Your task to perform on an android device: uninstall "Spotify: Music and Podcasts" Image 0: 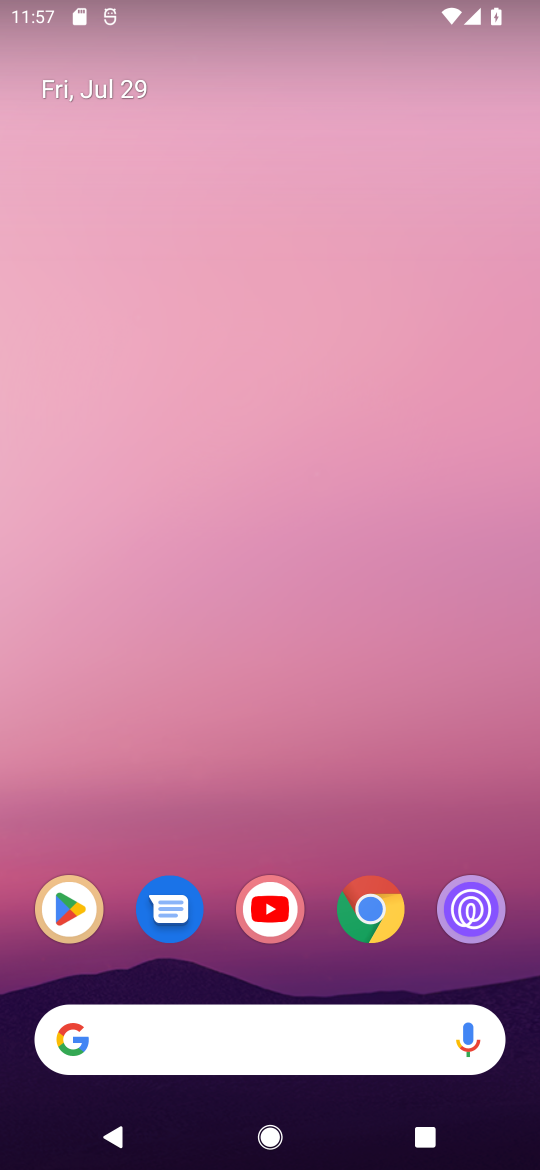
Step 0: press home button
Your task to perform on an android device: uninstall "Spotify: Music and Podcasts" Image 1: 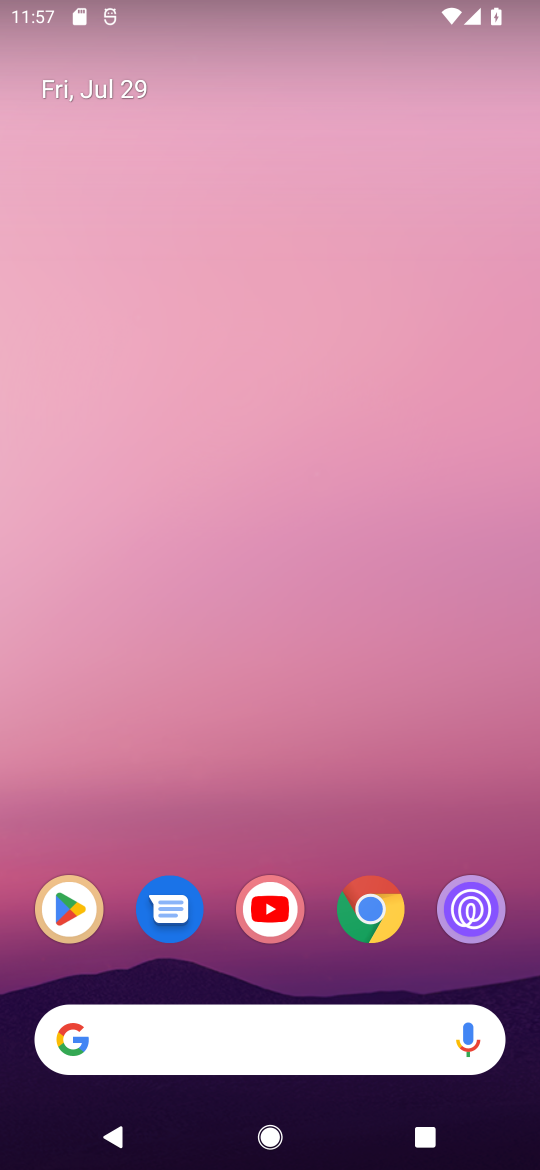
Step 1: press home button
Your task to perform on an android device: uninstall "Spotify: Music and Podcasts" Image 2: 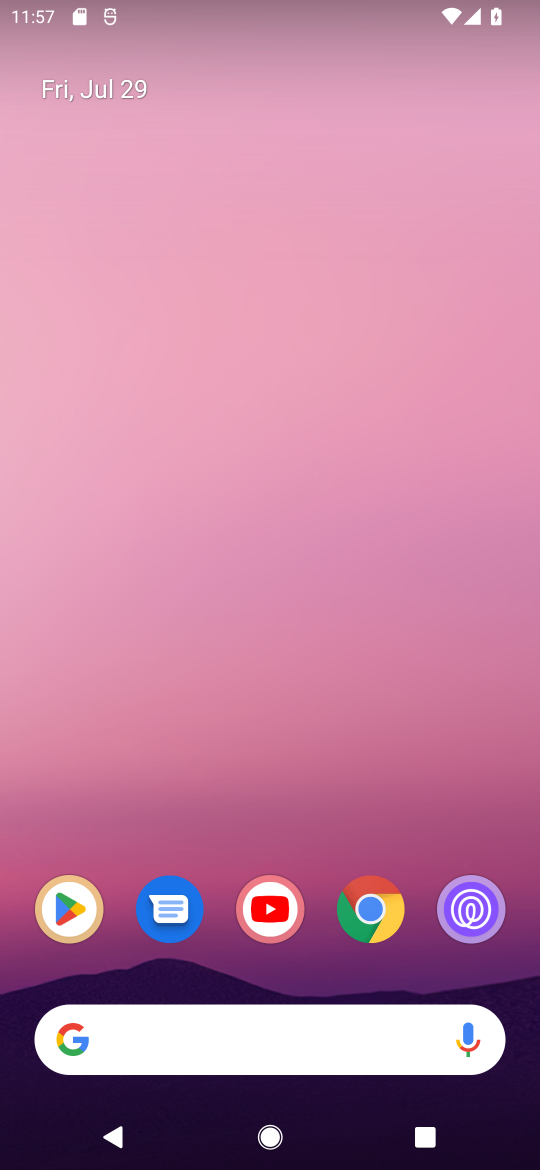
Step 2: drag from (399, 697) to (389, 99)
Your task to perform on an android device: uninstall "Spotify: Music and Podcasts" Image 3: 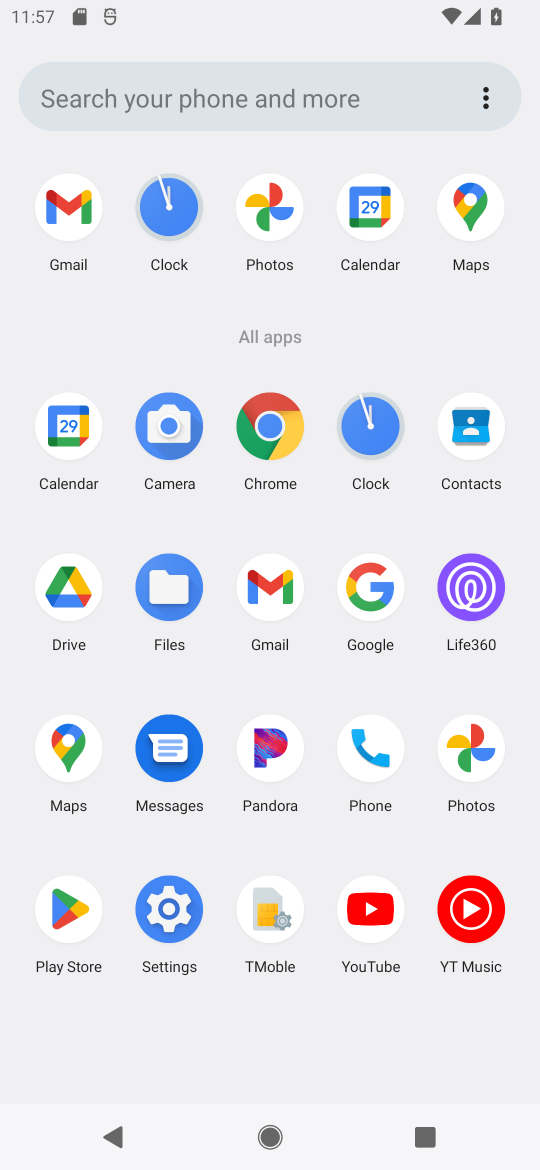
Step 3: click (63, 909)
Your task to perform on an android device: uninstall "Spotify: Music and Podcasts" Image 4: 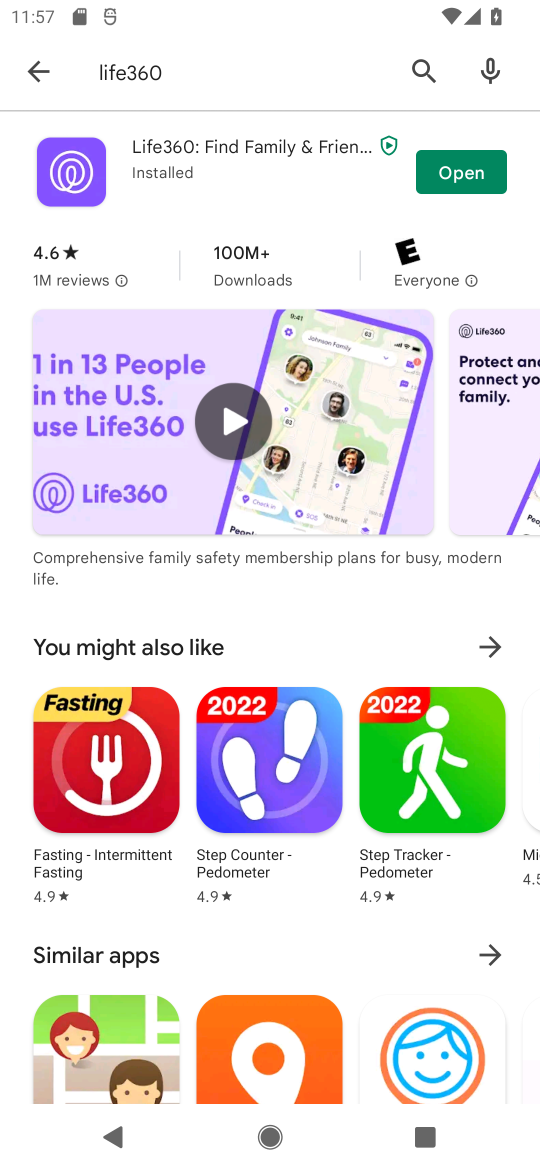
Step 4: click (423, 58)
Your task to perform on an android device: uninstall "Spotify: Music and Podcasts" Image 5: 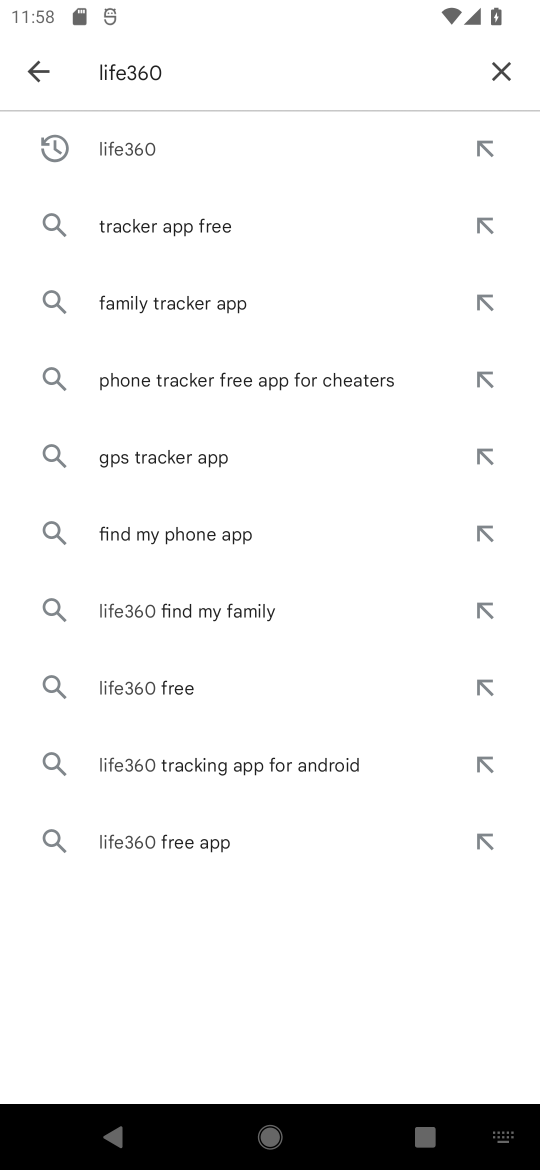
Step 5: type "Spotify: Music and Podcasts""
Your task to perform on an android device: uninstall "Spotify: Music and Podcasts" Image 6: 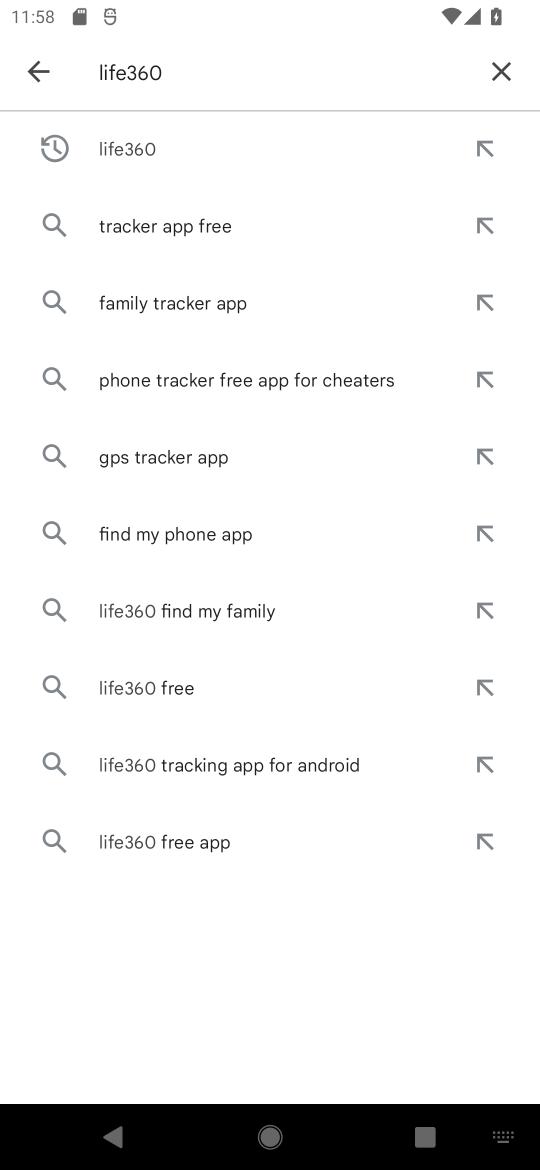
Step 6: click (490, 54)
Your task to perform on an android device: uninstall "Spotify: Music and Podcasts" Image 7: 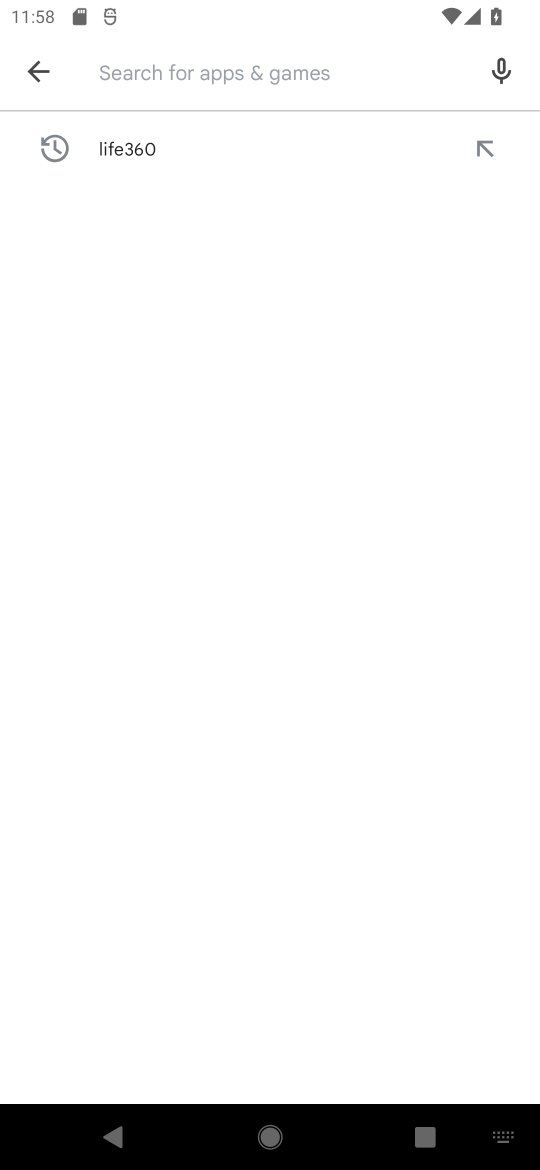
Step 7: type "Spotify"
Your task to perform on an android device: uninstall "Spotify: Music and Podcasts" Image 8: 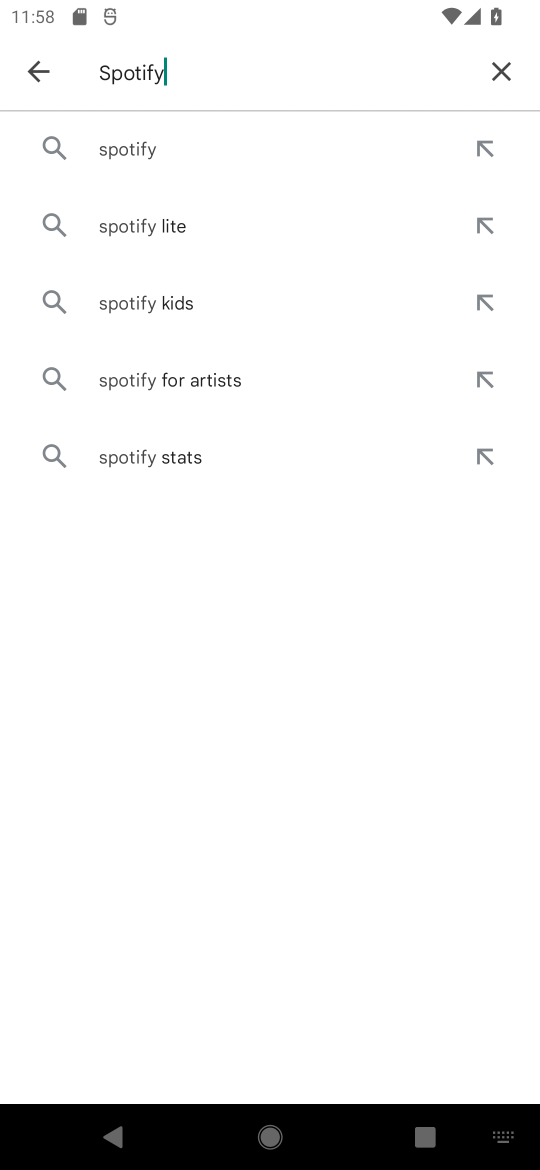
Step 8: click (139, 145)
Your task to perform on an android device: uninstall "Spotify: Music and Podcasts" Image 9: 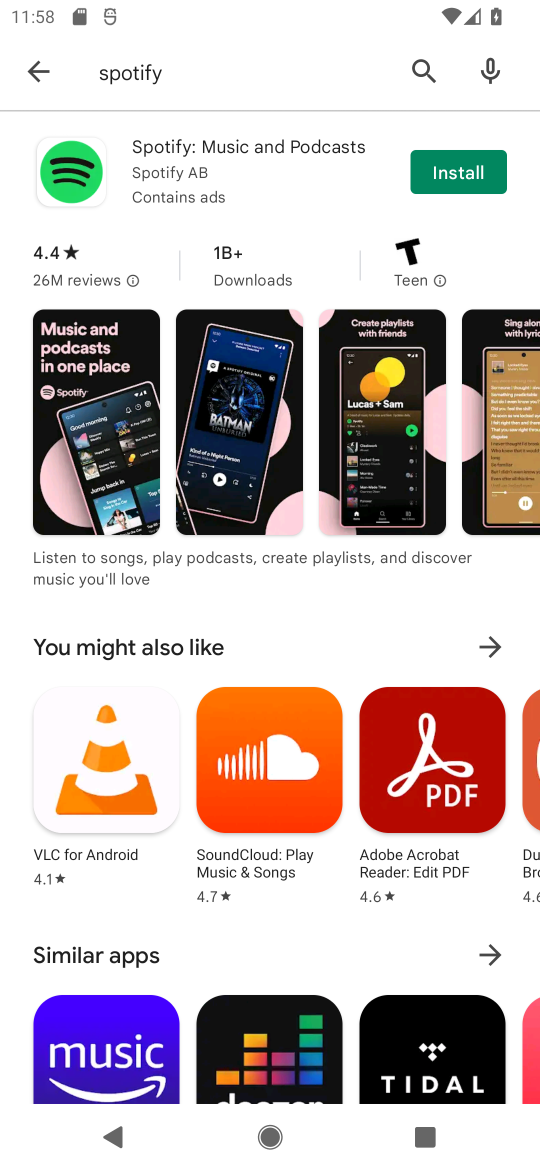
Step 9: click (449, 166)
Your task to perform on an android device: uninstall "Spotify: Music and Podcasts" Image 10: 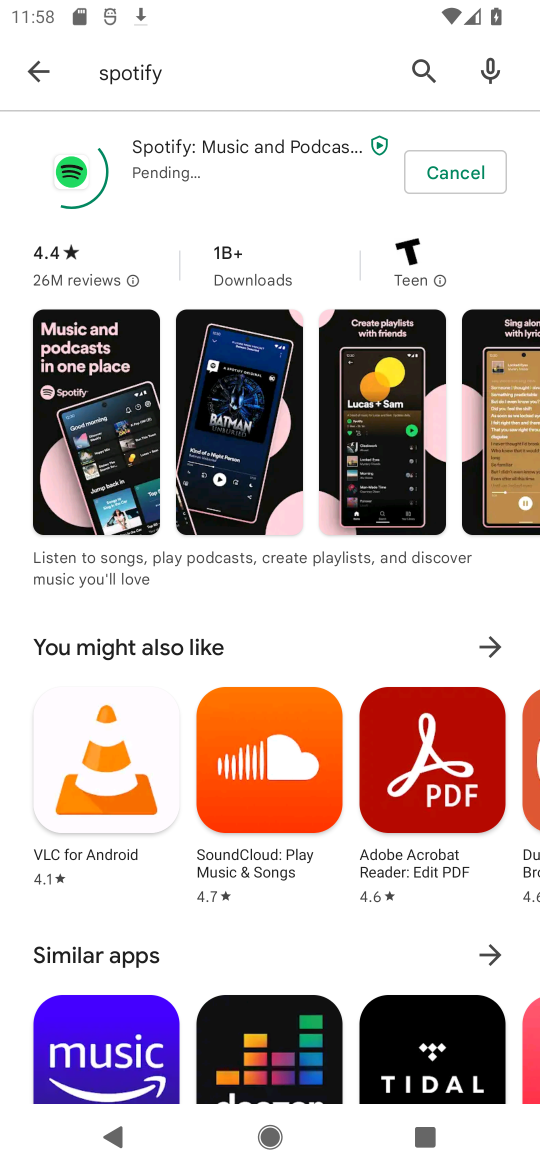
Step 10: click (179, 143)
Your task to perform on an android device: uninstall "Spotify: Music and Podcasts" Image 11: 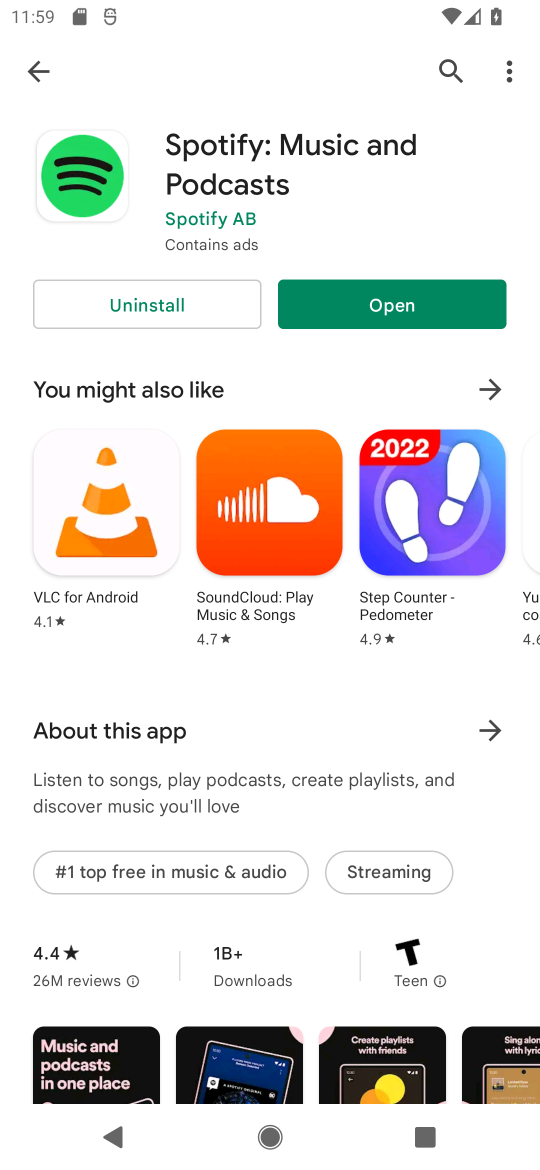
Step 11: click (88, 315)
Your task to perform on an android device: uninstall "Spotify: Music and Podcasts" Image 12: 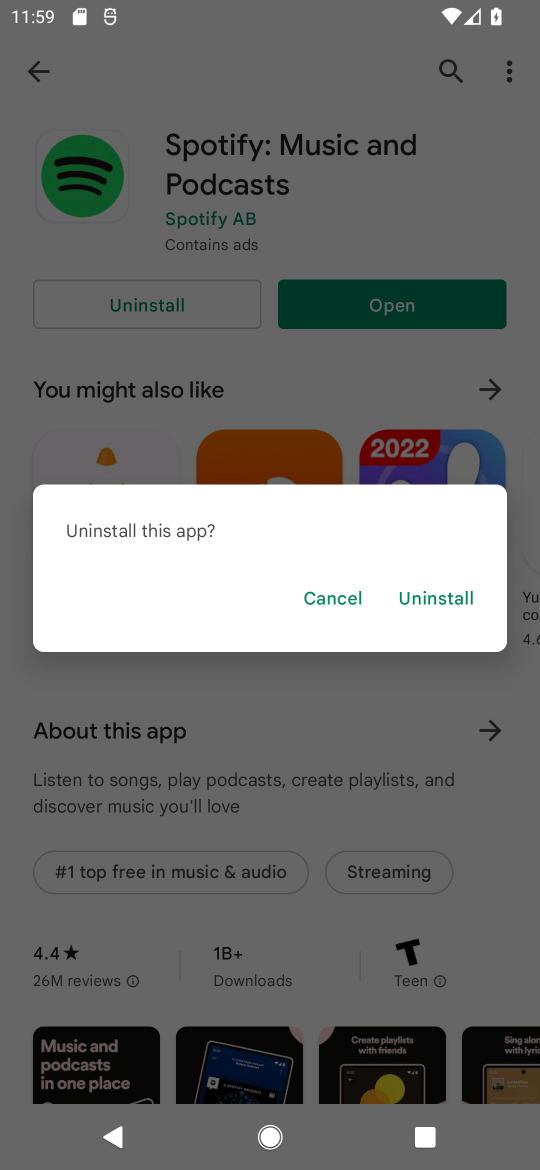
Step 12: click (420, 605)
Your task to perform on an android device: uninstall "Spotify: Music and Podcasts" Image 13: 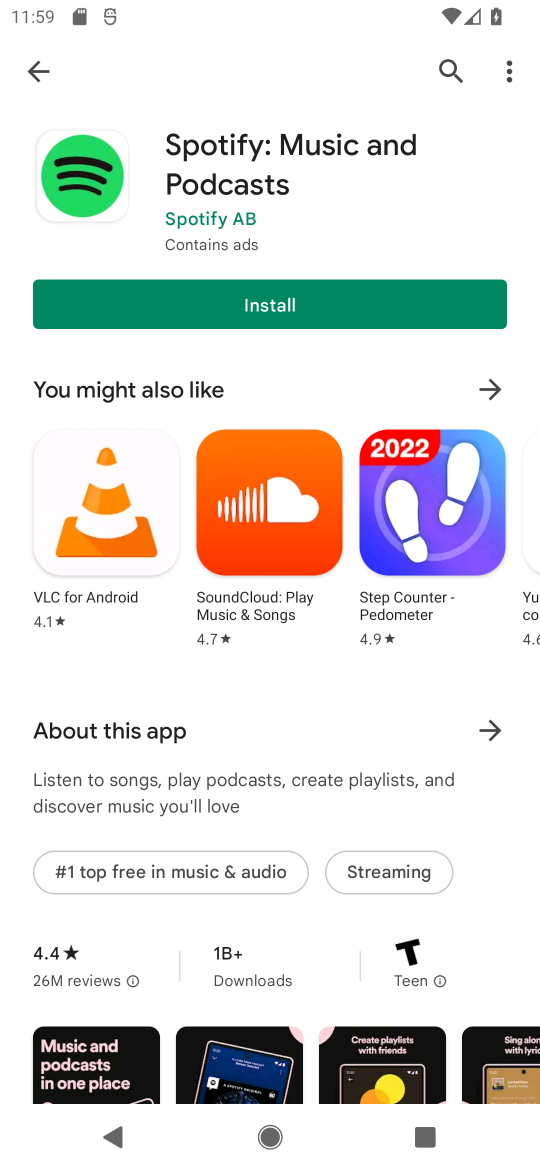
Step 13: task complete